Your task to perform on an android device: see sites visited before in the chrome app Image 0: 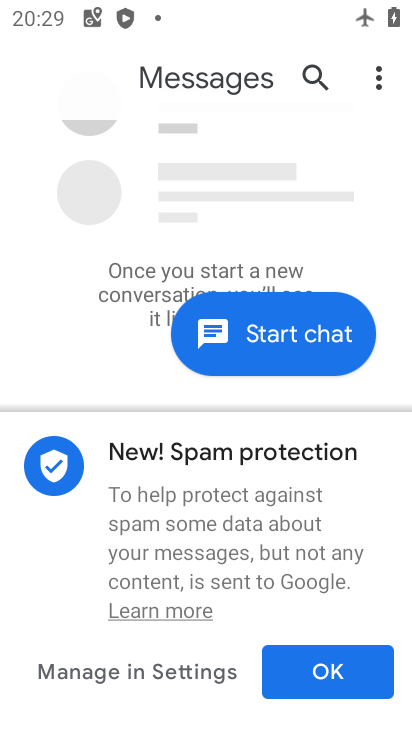
Step 0: press home button
Your task to perform on an android device: see sites visited before in the chrome app Image 1: 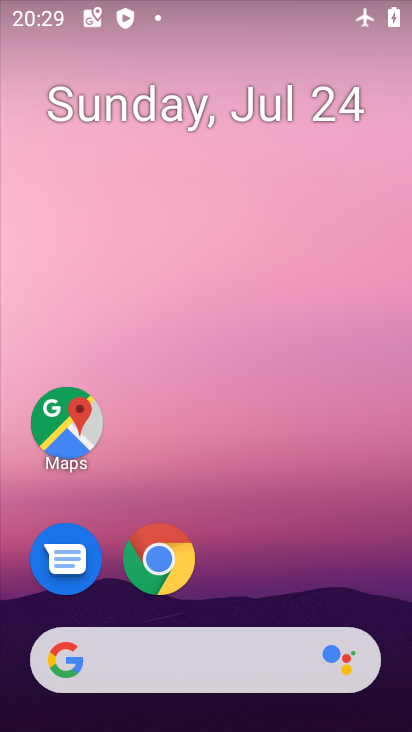
Step 1: drag from (380, 578) to (361, 119)
Your task to perform on an android device: see sites visited before in the chrome app Image 2: 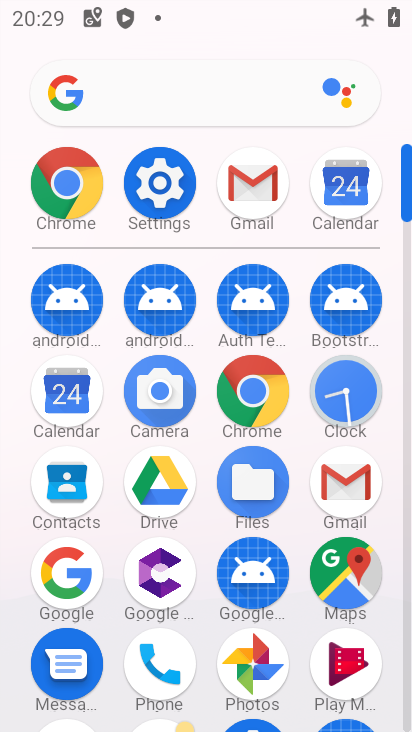
Step 2: click (267, 399)
Your task to perform on an android device: see sites visited before in the chrome app Image 3: 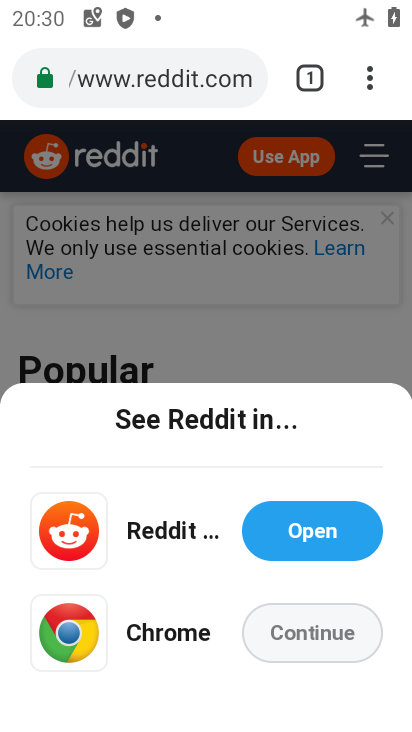
Step 3: click (366, 82)
Your task to perform on an android device: see sites visited before in the chrome app Image 4: 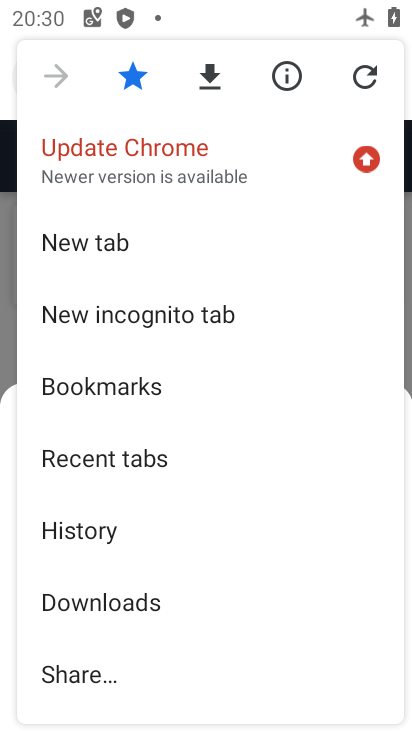
Step 4: drag from (284, 445) to (306, 330)
Your task to perform on an android device: see sites visited before in the chrome app Image 5: 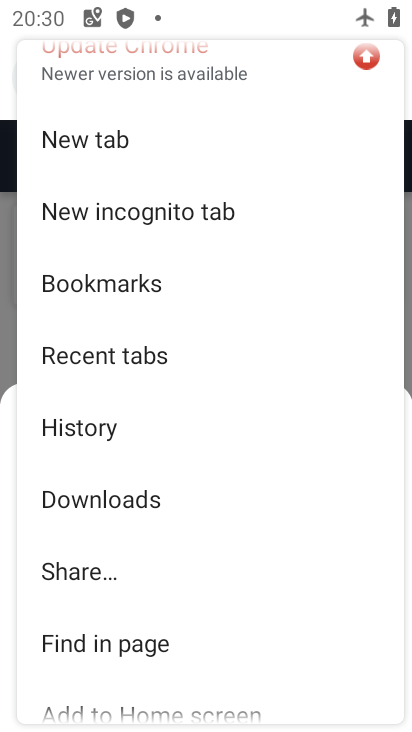
Step 5: drag from (303, 475) to (302, 296)
Your task to perform on an android device: see sites visited before in the chrome app Image 6: 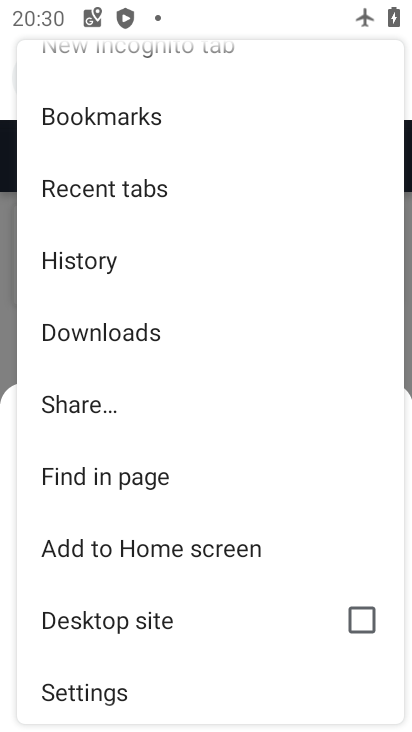
Step 6: click (257, 245)
Your task to perform on an android device: see sites visited before in the chrome app Image 7: 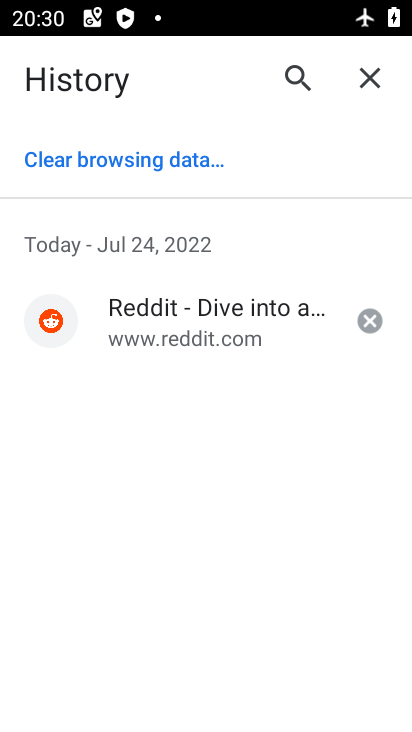
Step 7: task complete